Your task to perform on an android device: Go to notification settings Image 0: 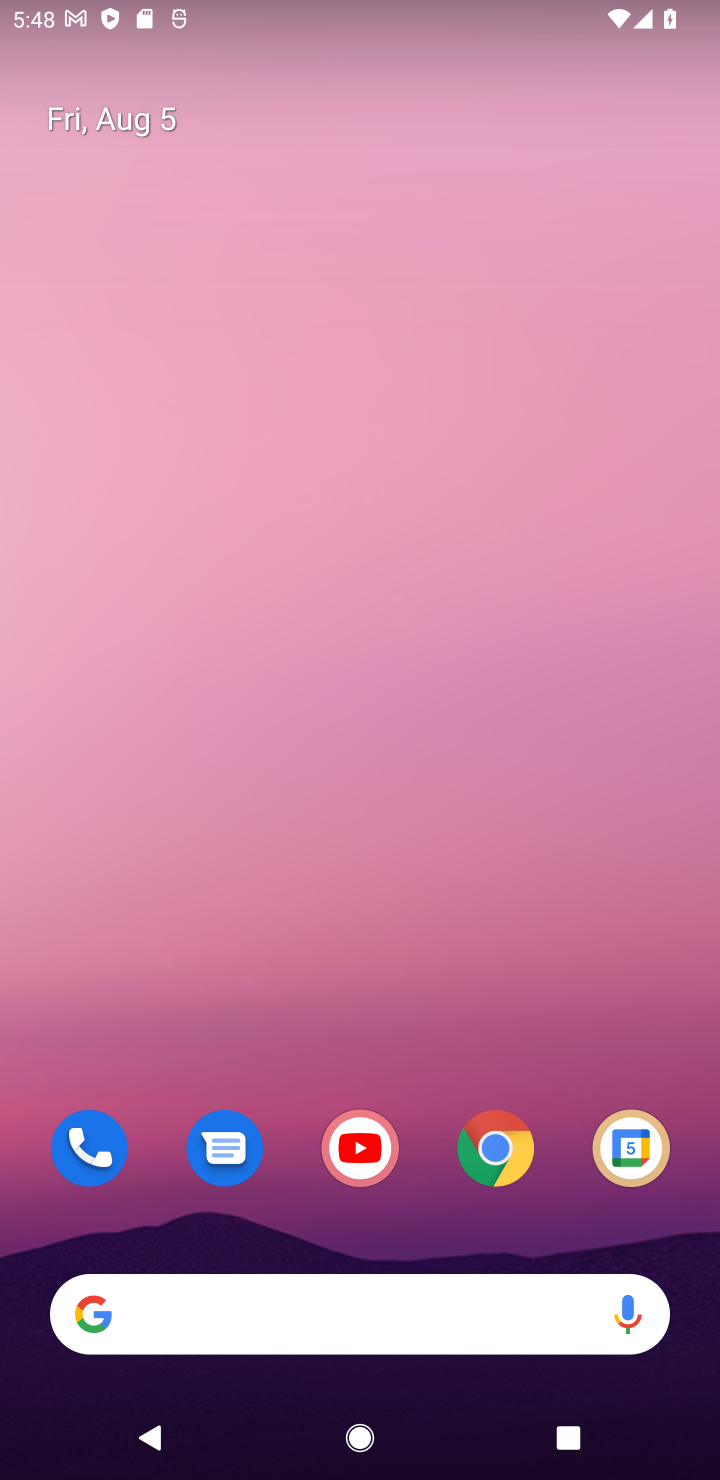
Step 0: drag from (421, 989) to (243, 49)
Your task to perform on an android device: Go to notification settings Image 1: 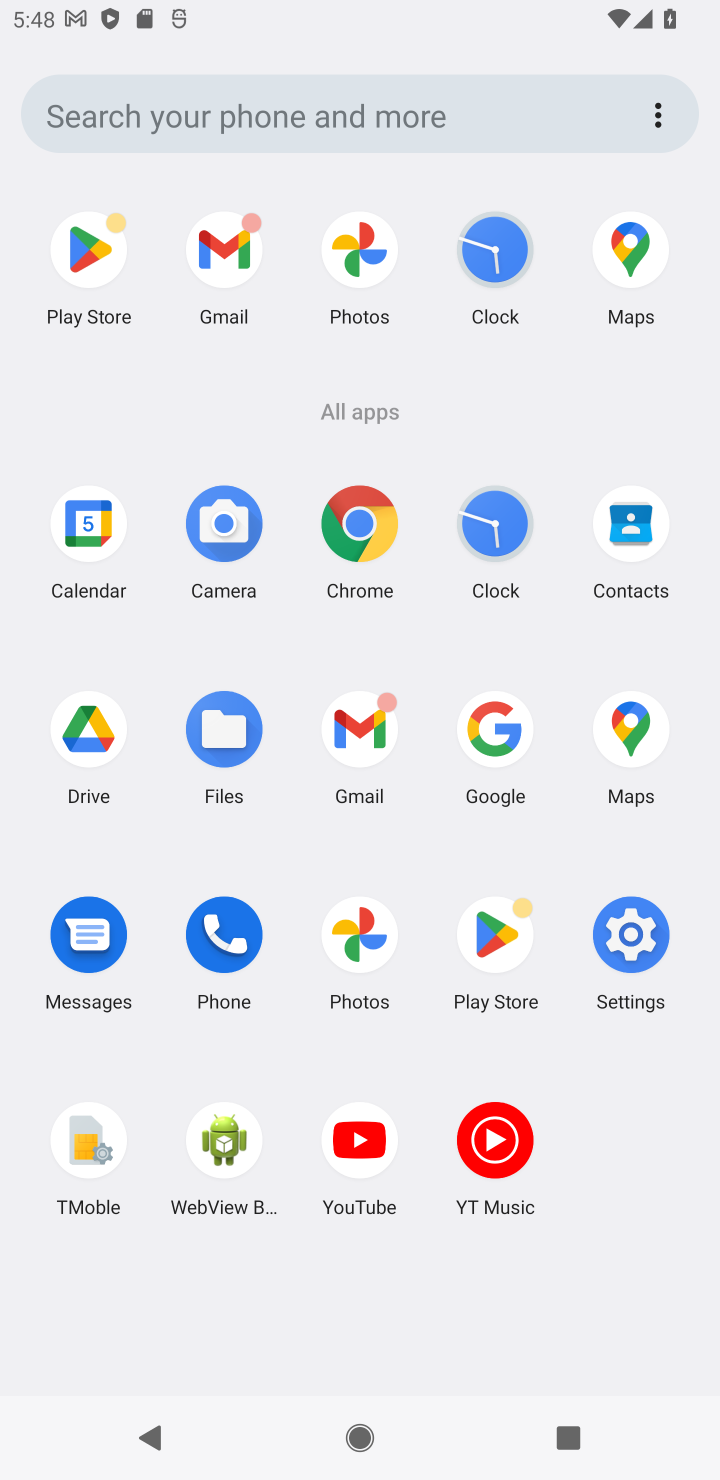
Step 1: click (635, 936)
Your task to perform on an android device: Go to notification settings Image 2: 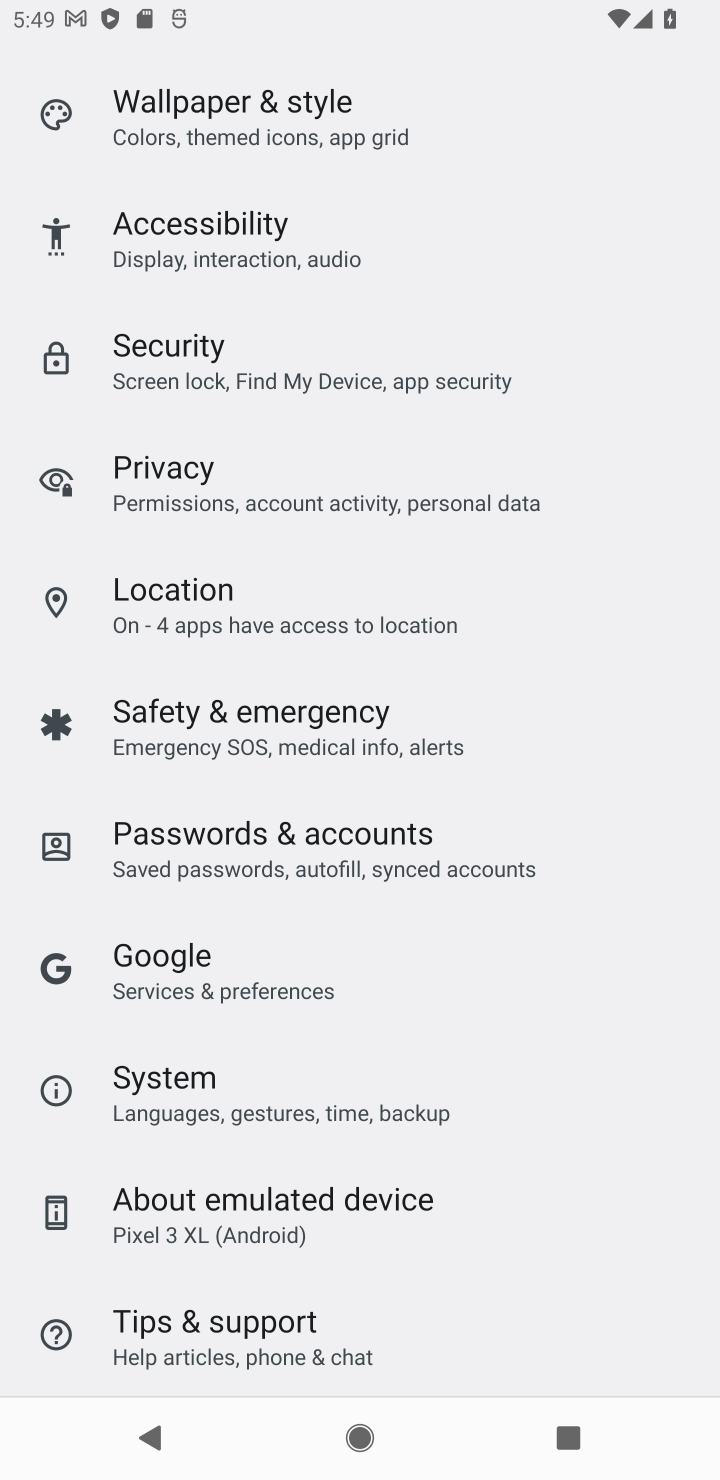
Step 2: drag from (376, 251) to (418, 1088)
Your task to perform on an android device: Go to notification settings Image 3: 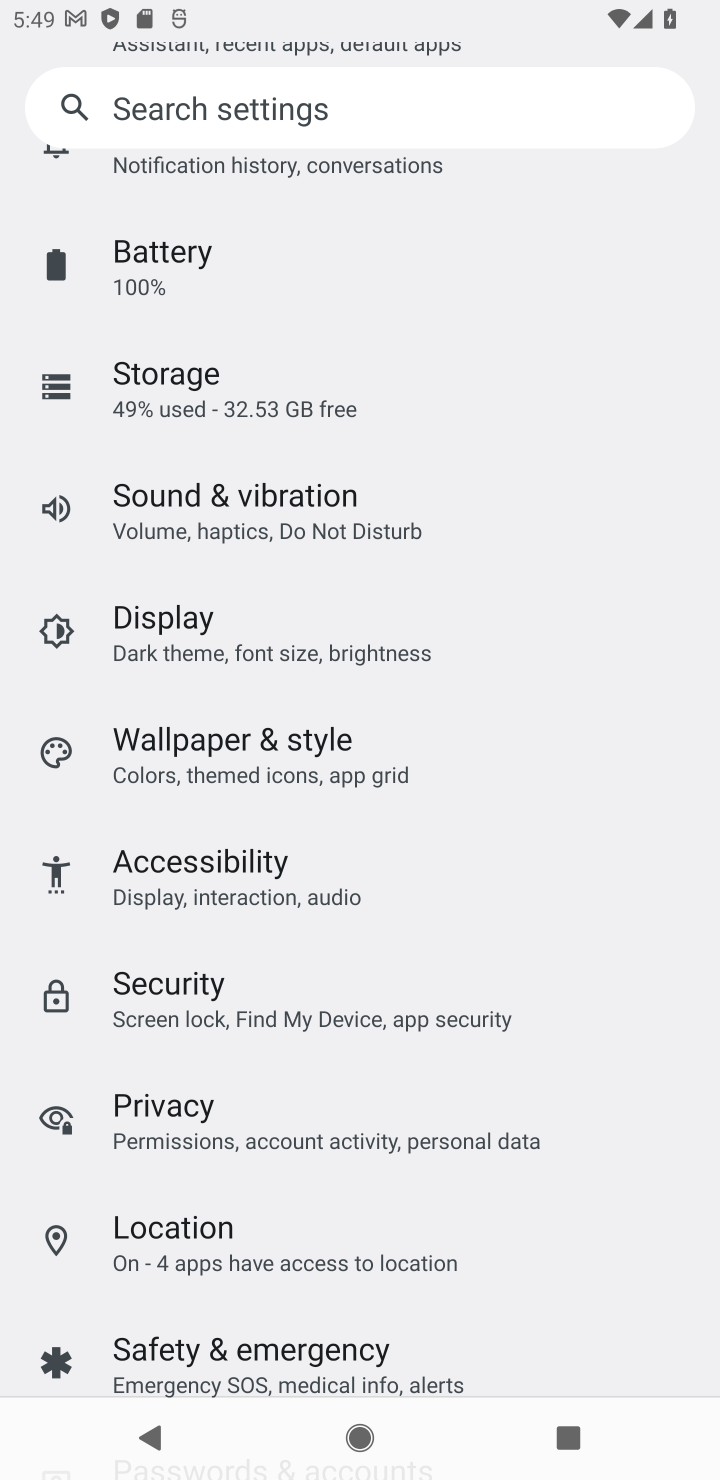
Step 3: drag from (400, 352) to (561, 1101)
Your task to perform on an android device: Go to notification settings Image 4: 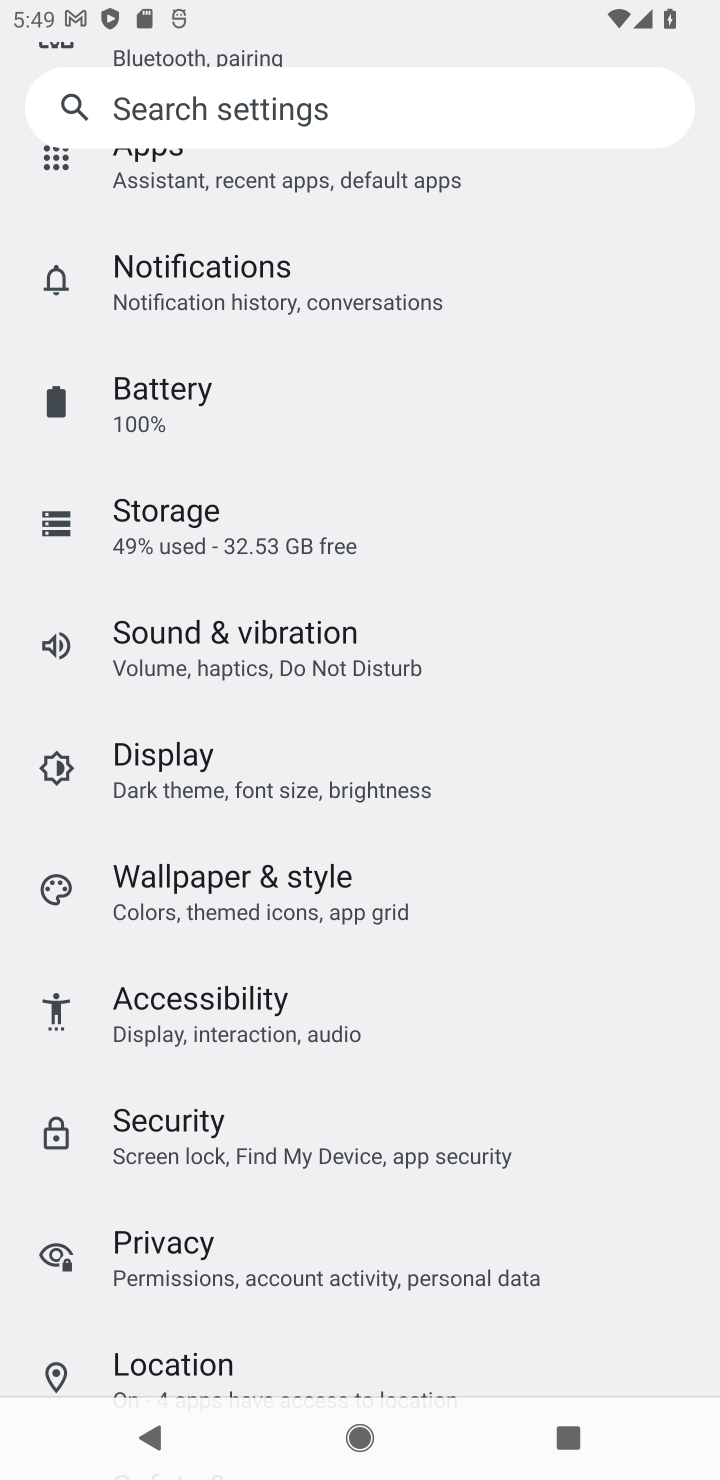
Step 4: click (206, 267)
Your task to perform on an android device: Go to notification settings Image 5: 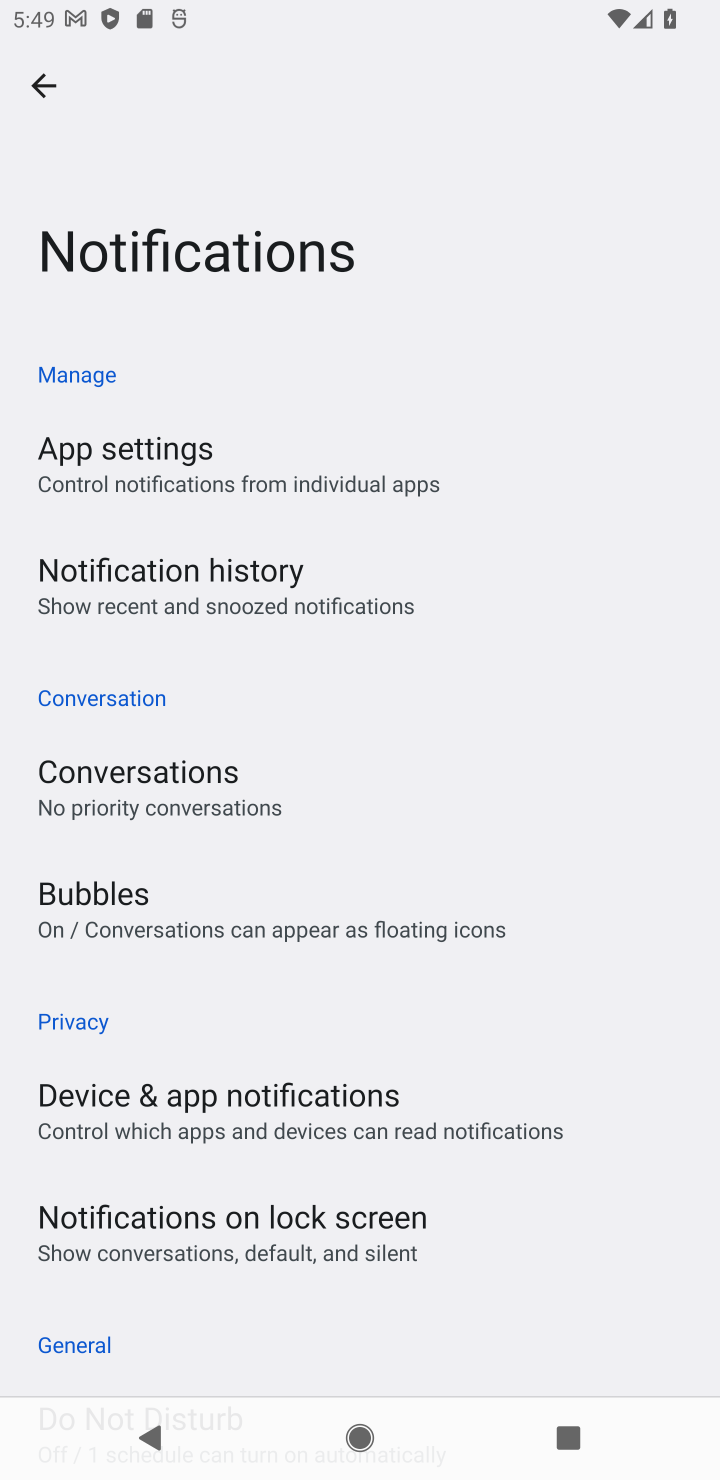
Step 5: task complete